Your task to perform on an android device: Open ESPN.com Image 0: 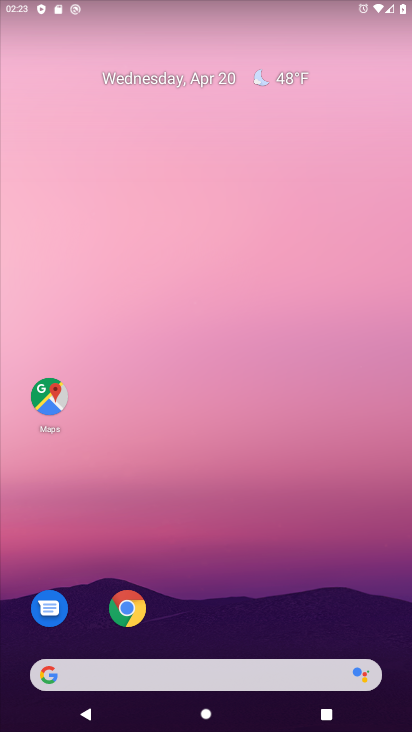
Step 0: click (136, 610)
Your task to perform on an android device: Open ESPN.com Image 1: 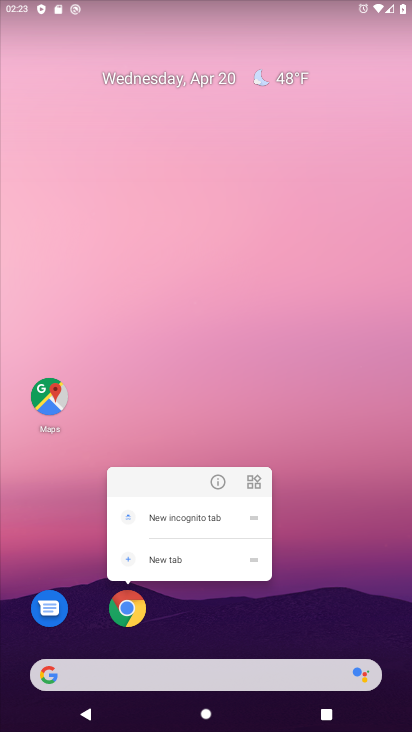
Step 1: click (133, 614)
Your task to perform on an android device: Open ESPN.com Image 2: 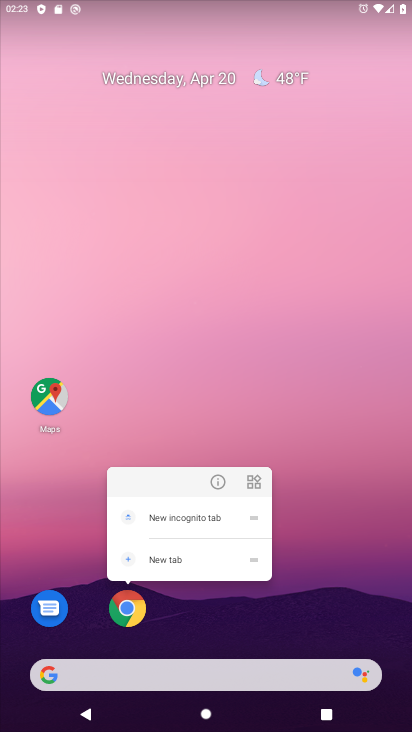
Step 2: click (135, 613)
Your task to perform on an android device: Open ESPN.com Image 3: 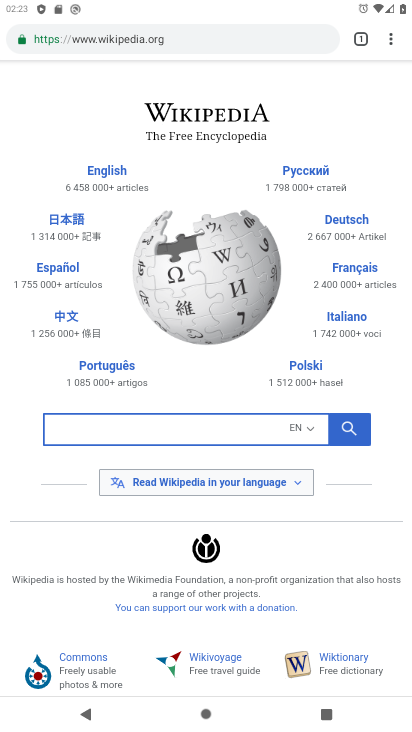
Step 3: click (156, 32)
Your task to perform on an android device: Open ESPN.com Image 4: 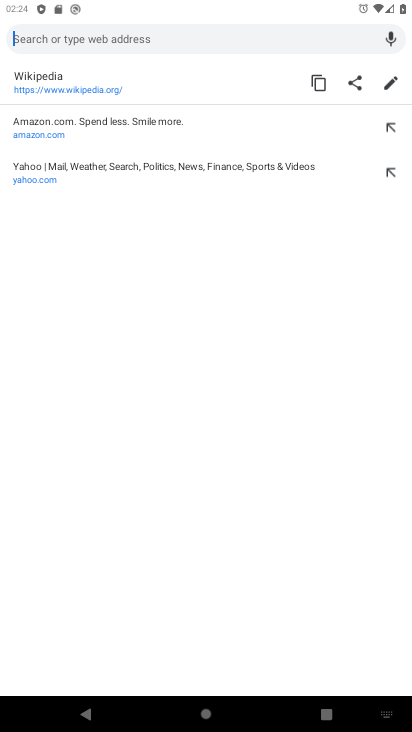
Step 4: type "ESPN.com"
Your task to perform on an android device: Open ESPN.com Image 5: 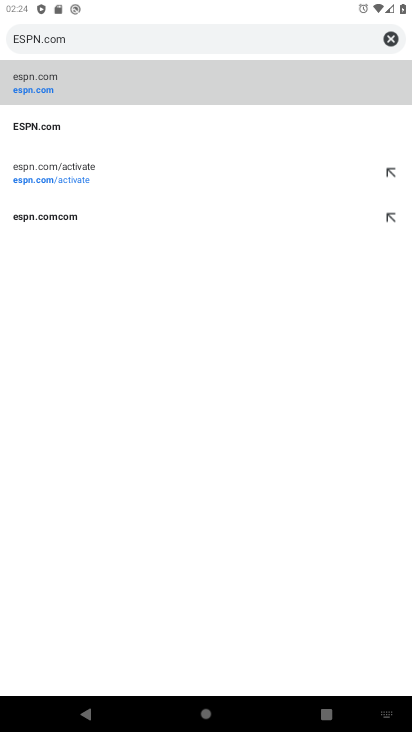
Step 5: click (39, 88)
Your task to perform on an android device: Open ESPN.com Image 6: 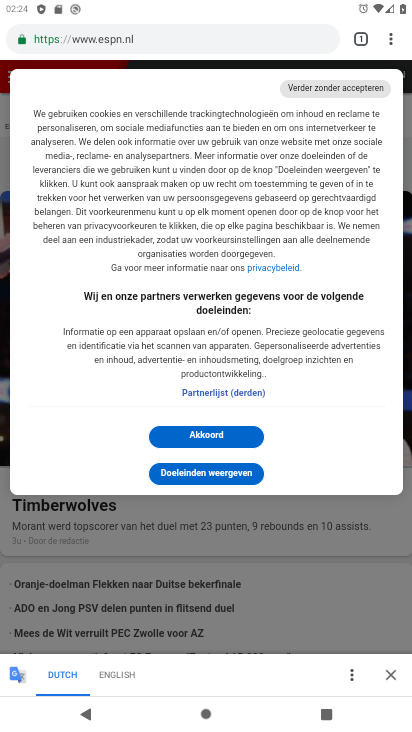
Step 6: task complete